Your task to perform on an android device: move a message to another label in the gmail app Image 0: 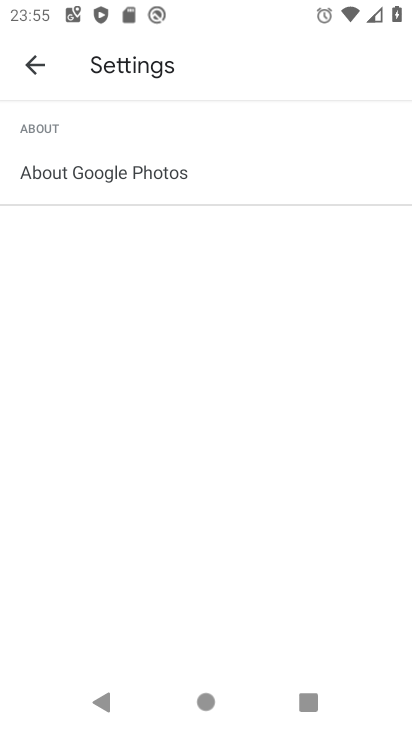
Step 0: press home button
Your task to perform on an android device: move a message to another label in the gmail app Image 1: 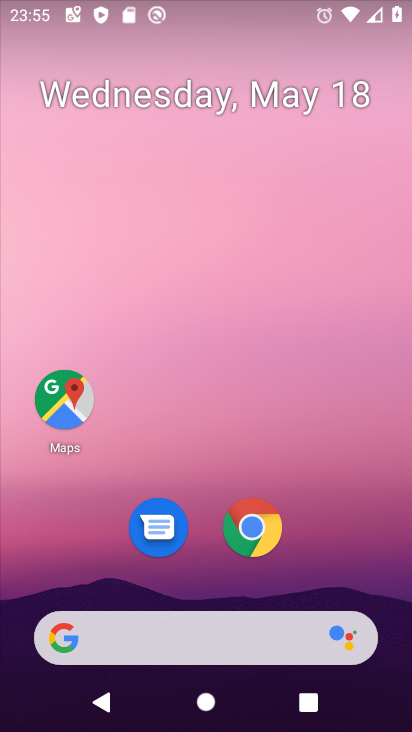
Step 1: drag from (382, 534) to (279, 13)
Your task to perform on an android device: move a message to another label in the gmail app Image 2: 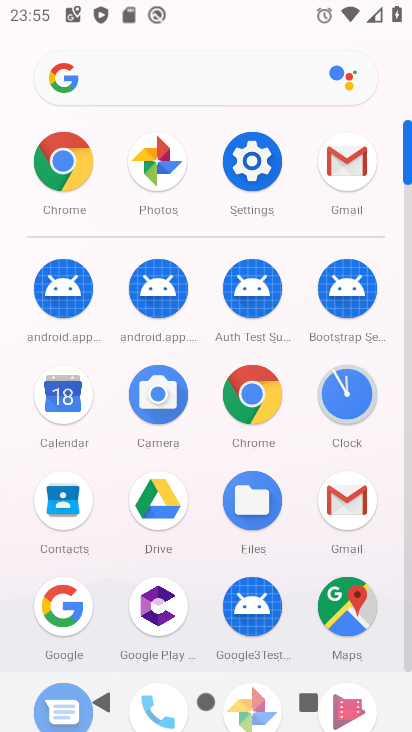
Step 2: click (343, 178)
Your task to perform on an android device: move a message to another label in the gmail app Image 3: 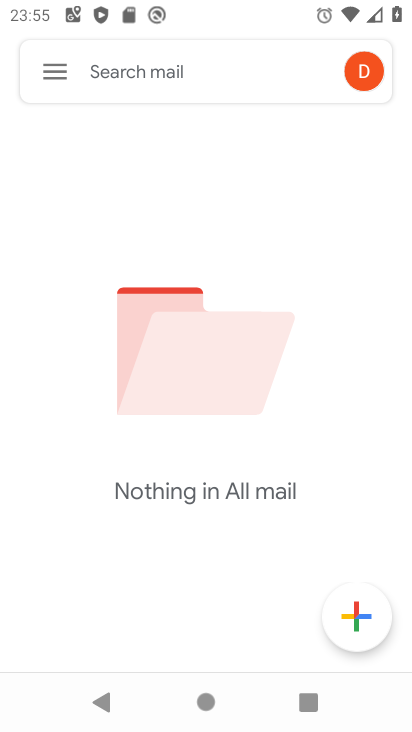
Step 3: click (39, 65)
Your task to perform on an android device: move a message to another label in the gmail app Image 4: 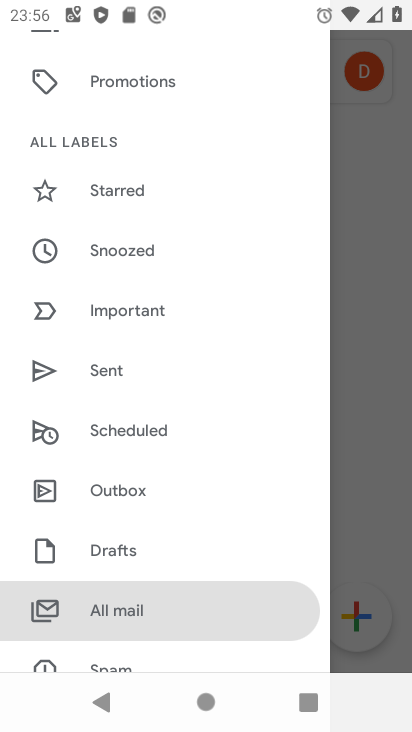
Step 4: click (141, 611)
Your task to perform on an android device: move a message to another label in the gmail app Image 5: 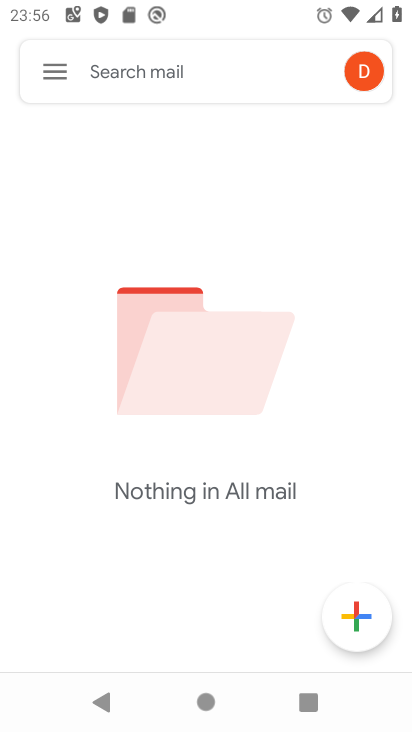
Step 5: task complete